Your task to perform on an android device: see sites visited before in the chrome app Image 0: 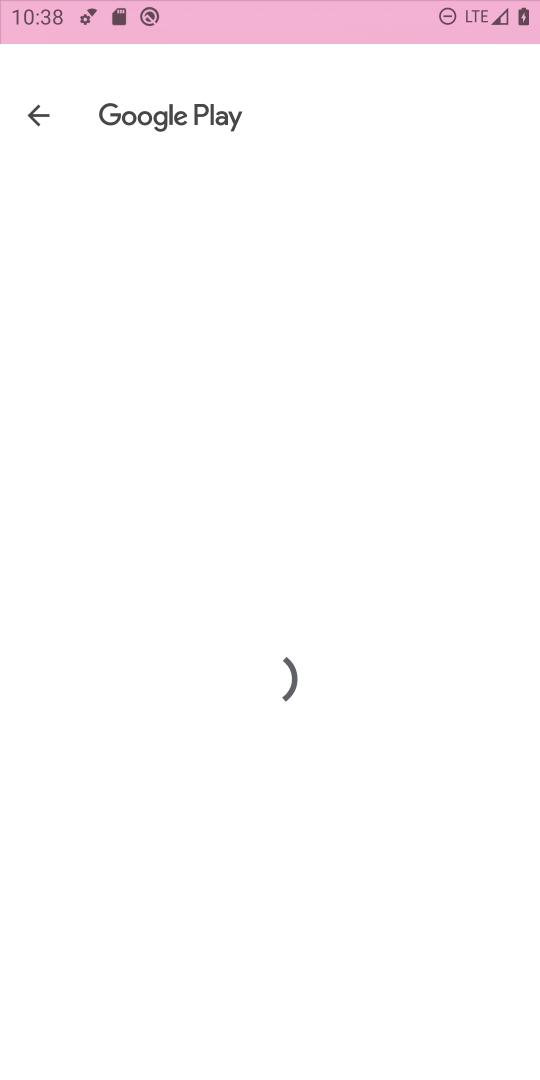
Step 0: press home button
Your task to perform on an android device: see sites visited before in the chrome app Image 1: 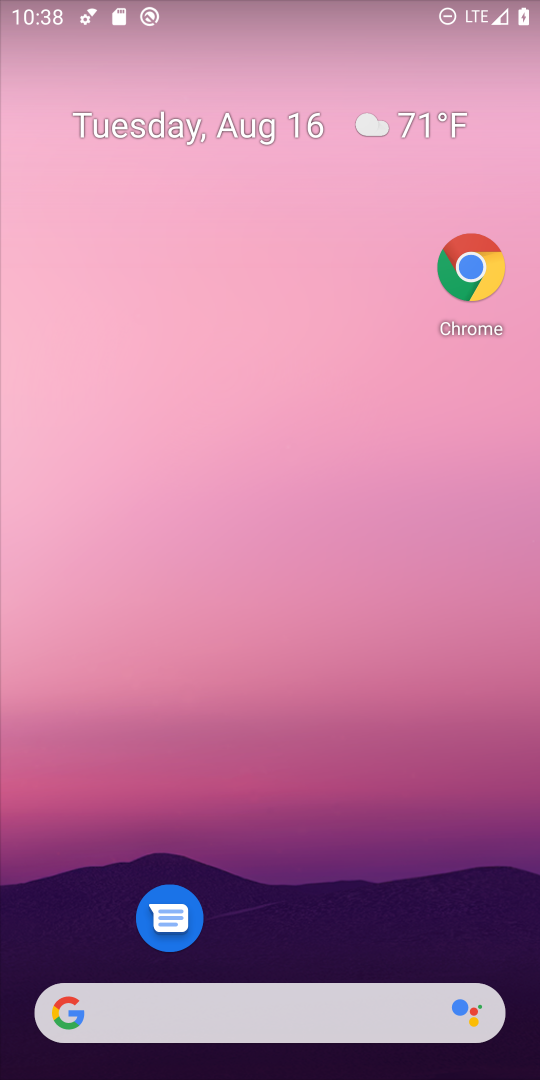
Step 1: drag from (319, 1046) to (262, 307)
Your task to perform on an android device: see sites visited before in the chrome app Image 2: 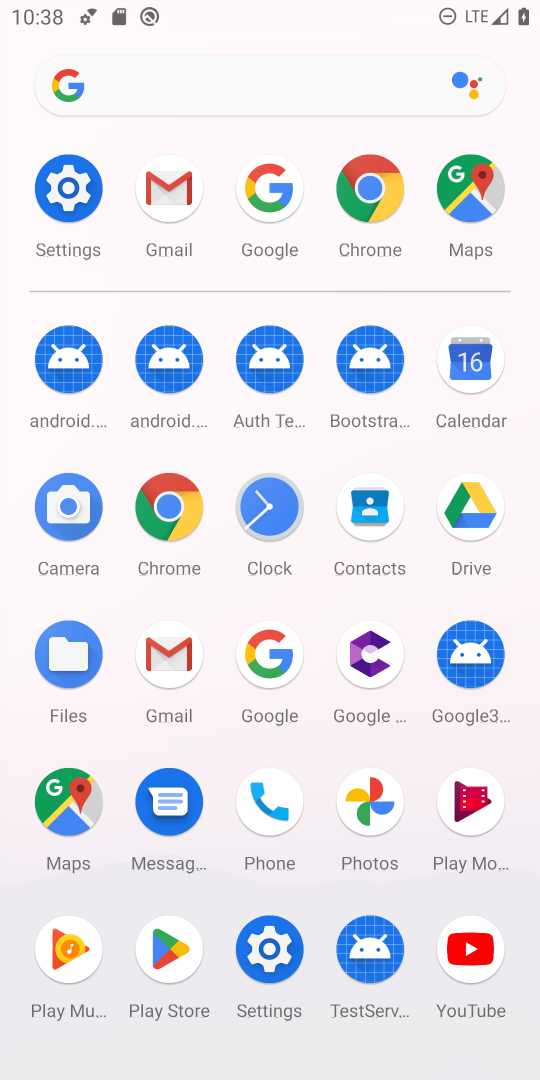
Step 2: click (373, 190)
Your task to perform on an android device: see sites visited before in the chrome app Image 3: 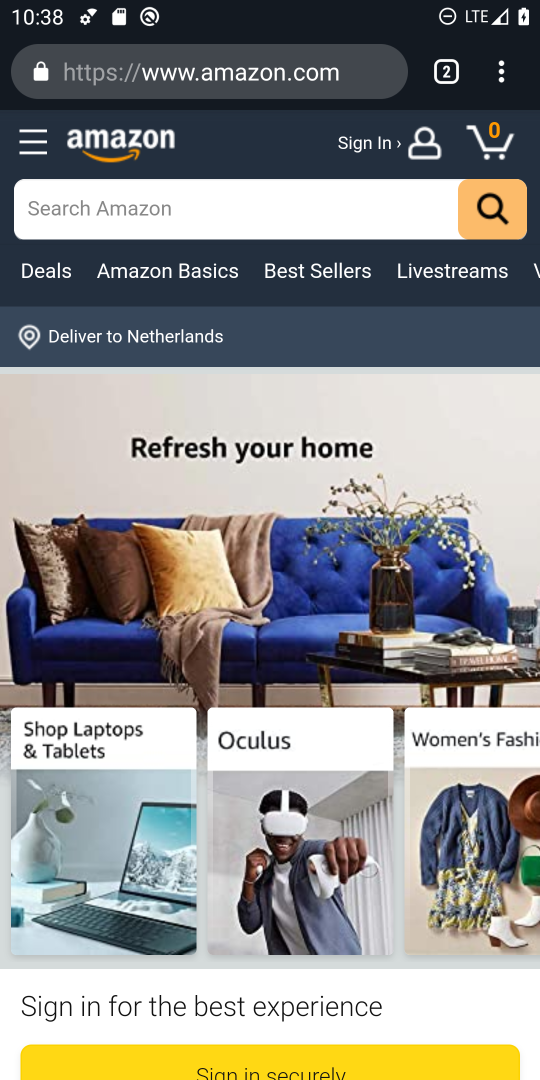
Step 3: click (496, 71)
Your task to perform on an android device: see sites visited before in the chrome app Image 4: 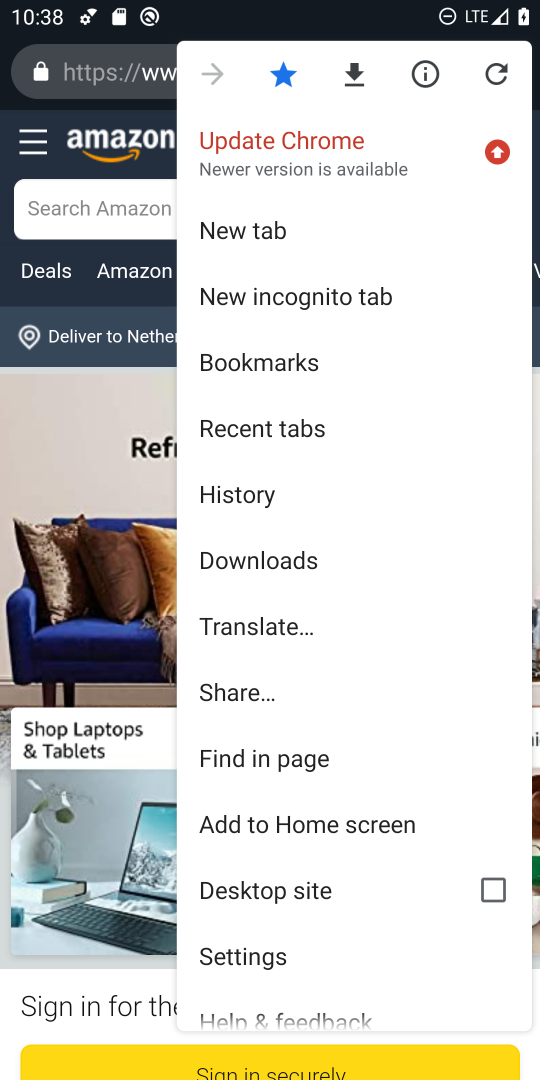
Step 4: click (232, 950)
Your task to perform on an android device: see sites visited before in the chrome app Image 5: 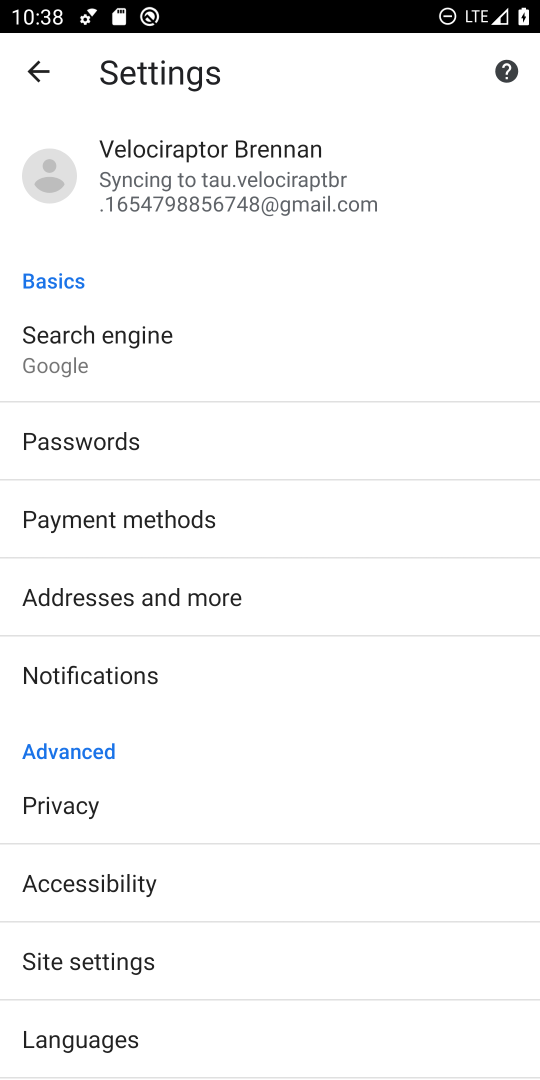
Step 5: click (44, 70)
Your task to perform on an android device: see sites visited before in the chrome app Image 6: 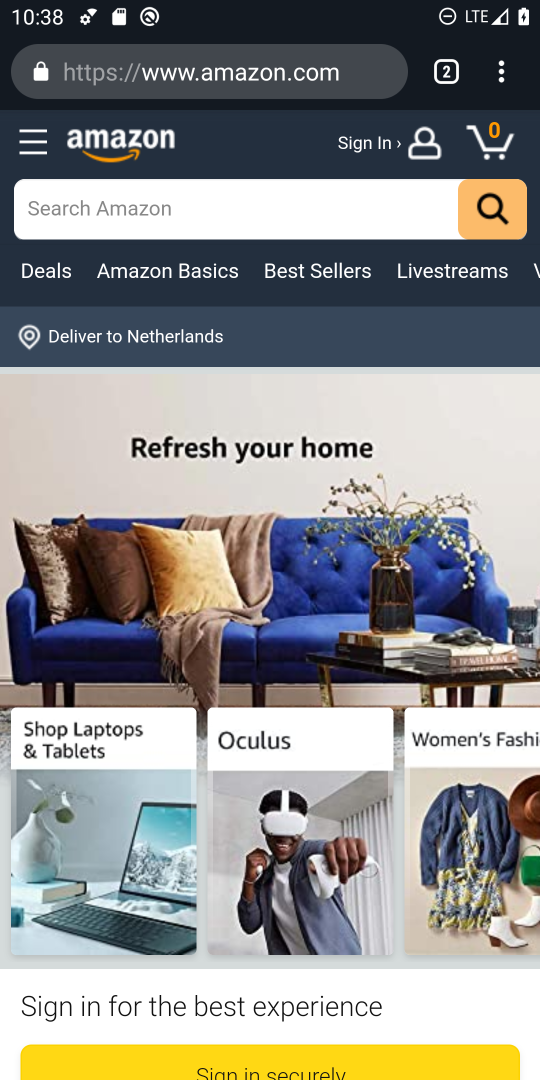
Step 6: click (505, 80)
Your task to perform on an android device: see sites visited before in the chrome app Image 7: 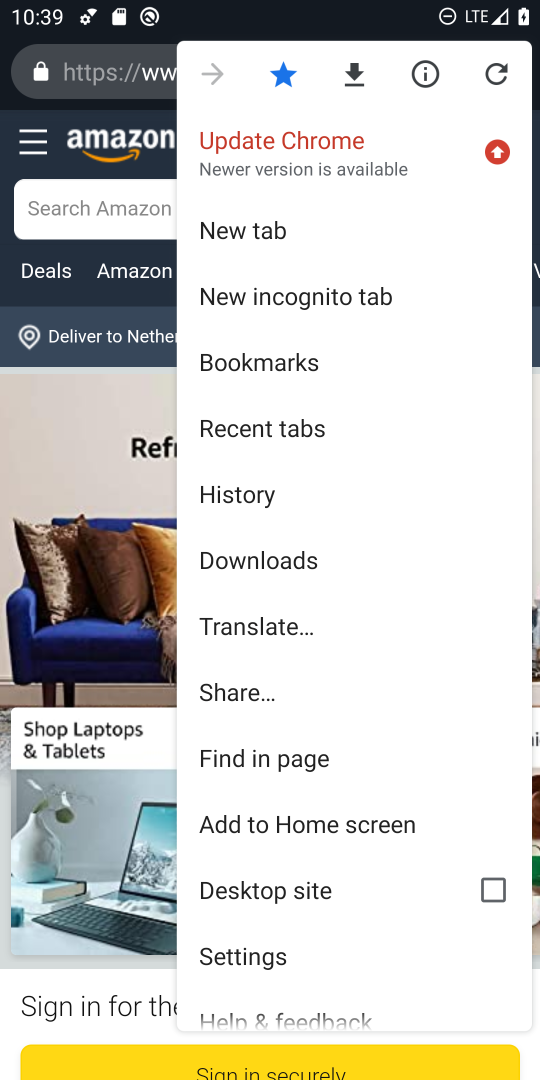
Step 7: click (269, 489)
Your task to perform on an android device: see sites visited before in the chrome app Image 8: 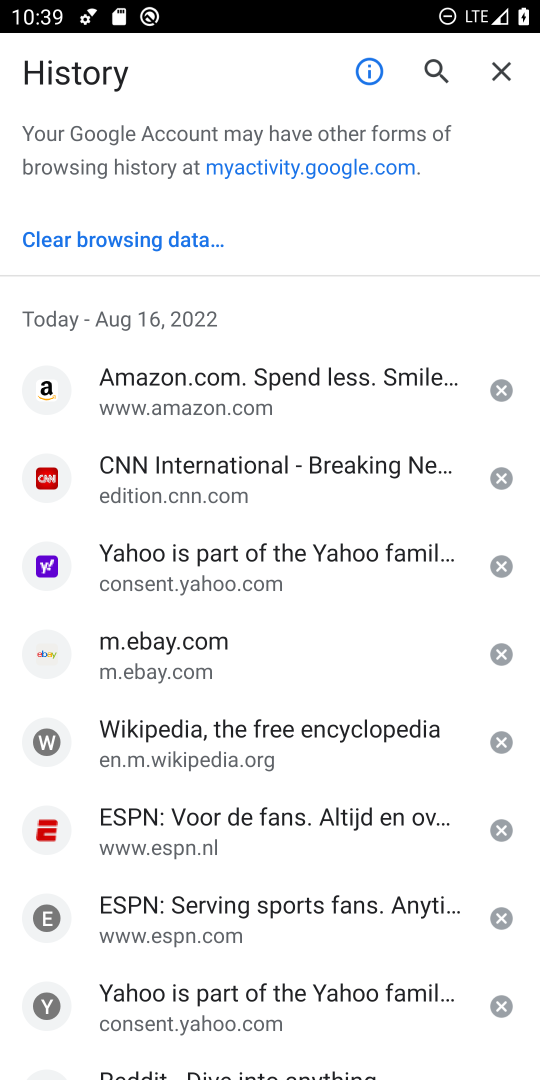
Step 8: task complete